Your task to perform on an android device: Add "amazon basics triple a" to the cart on costco Image 0: 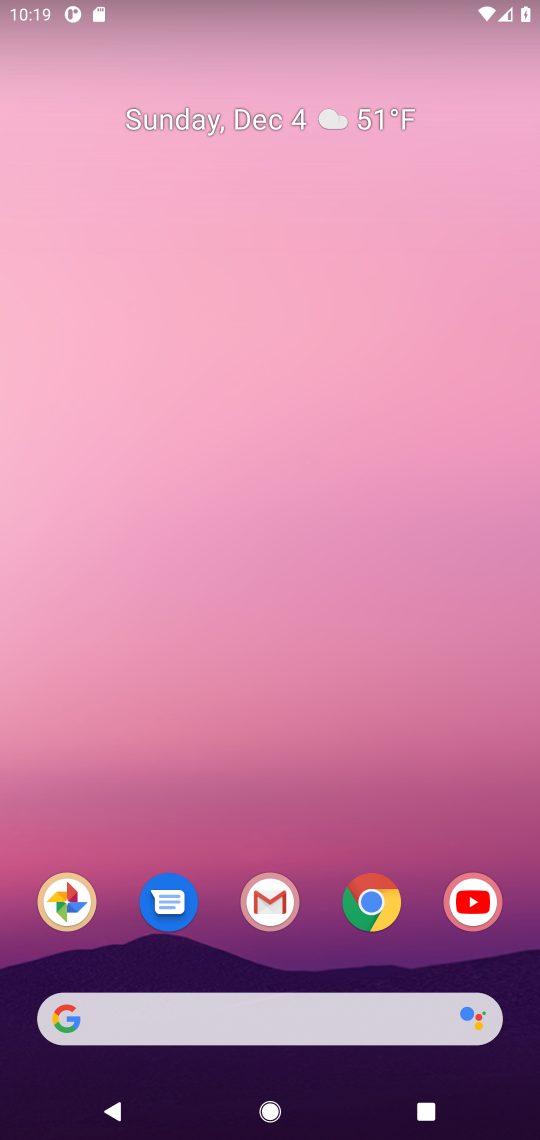
Step 0: click (357, 918)
Your task to perform on an android device: Add "amazon basics triple a" to the cart on costco Image 1: 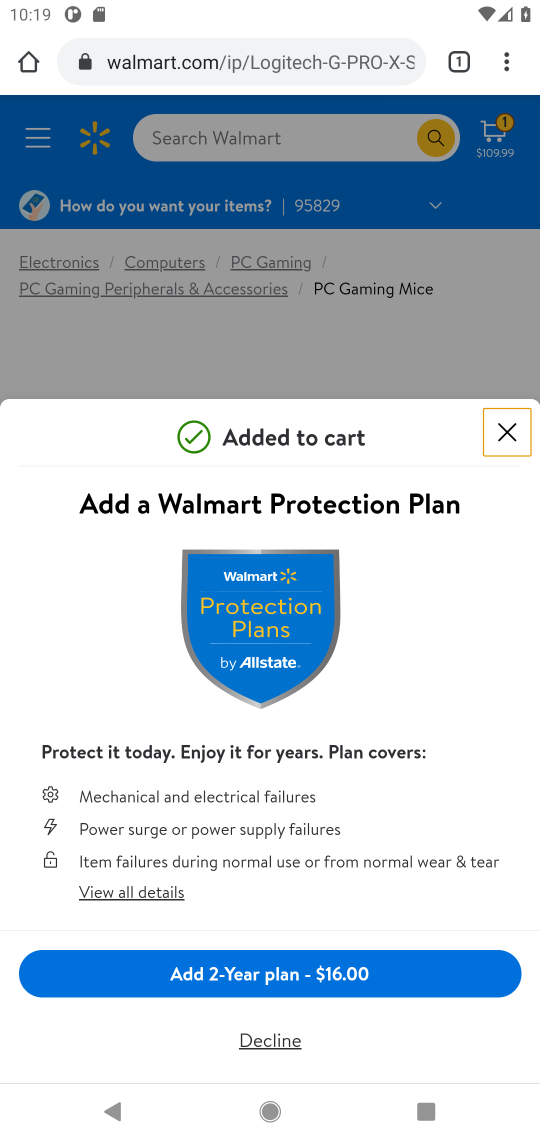
Step 1: click (381, 36)
Your task to perform on an android device: Add "amazon basics triple a" to the cart on costco Image 2: 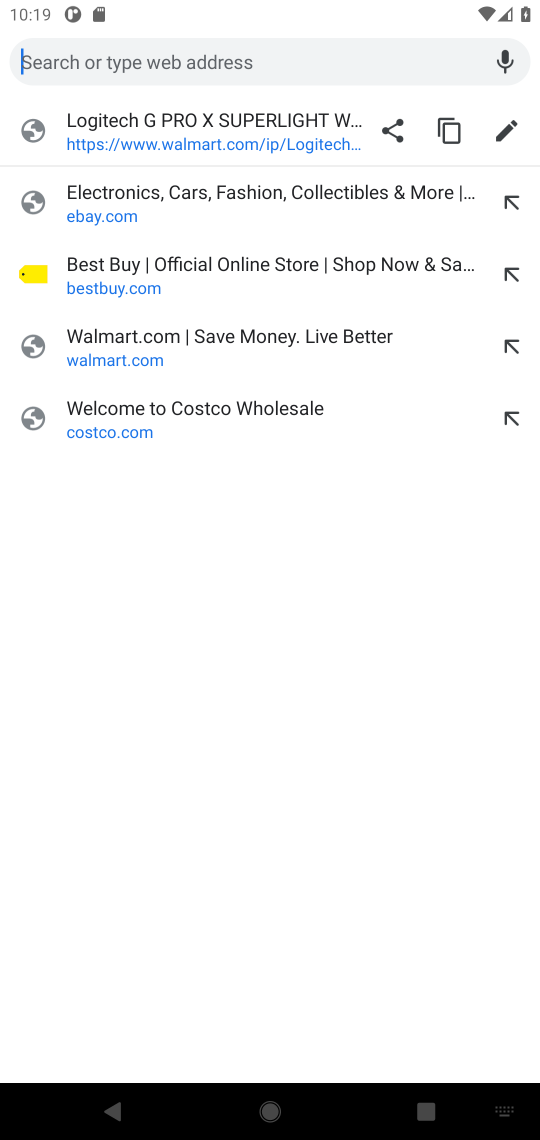
Step 2: click (195, 430)
Your task to perform on an android device: Add "amazon basics triple a" to the cart on costco Image 3: 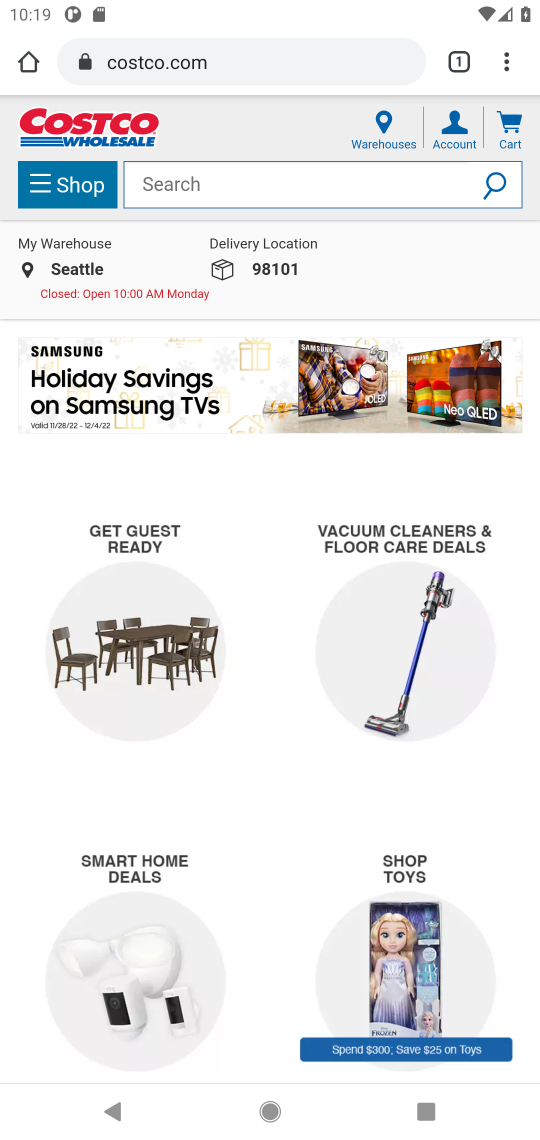
Step 3: click (196, 197)
Your task to perform on an android device: Add "amazon basics triple a" to the cart on costco Image 4: 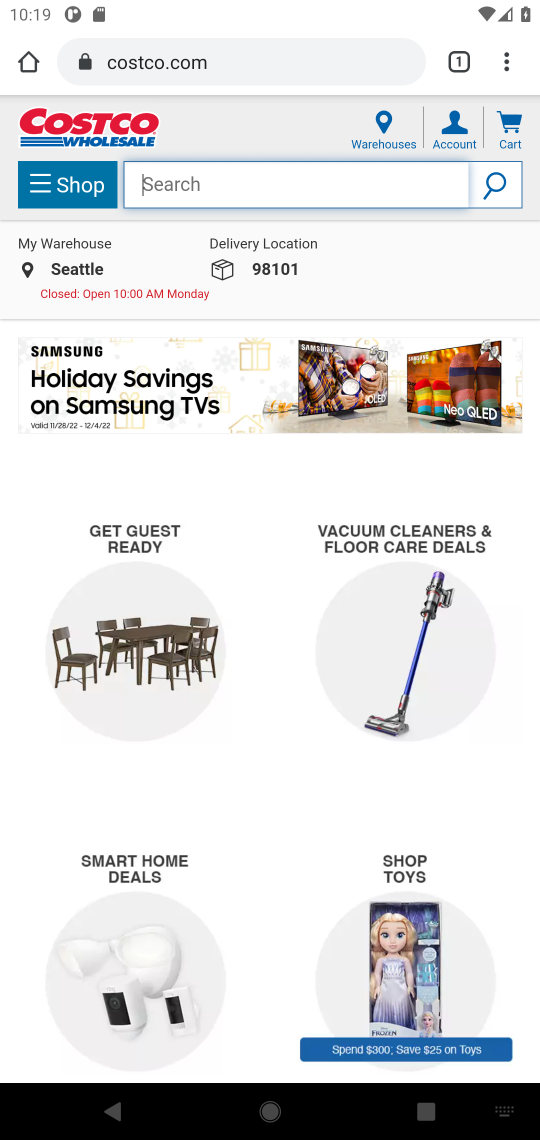
Step 4: type "amazon basics triple a"
Your task to perform on an android device: Add "amazon basics triple a" to the cart on costco Image 5: 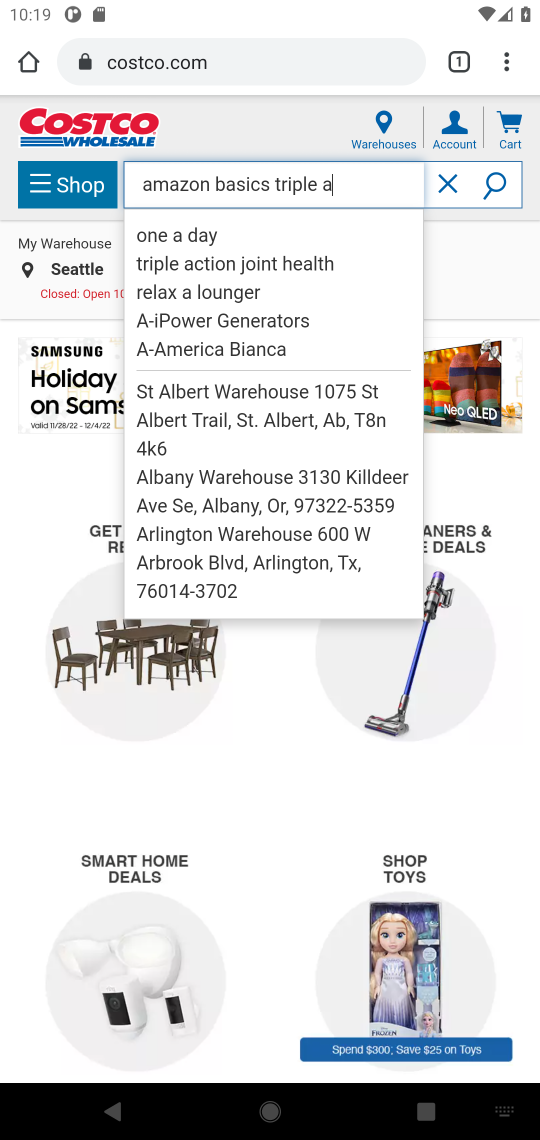
Step 5: click (489, 170)
Your task to perform on an android device: Add "amazon basics triple a" to the cart on costco Image 6: 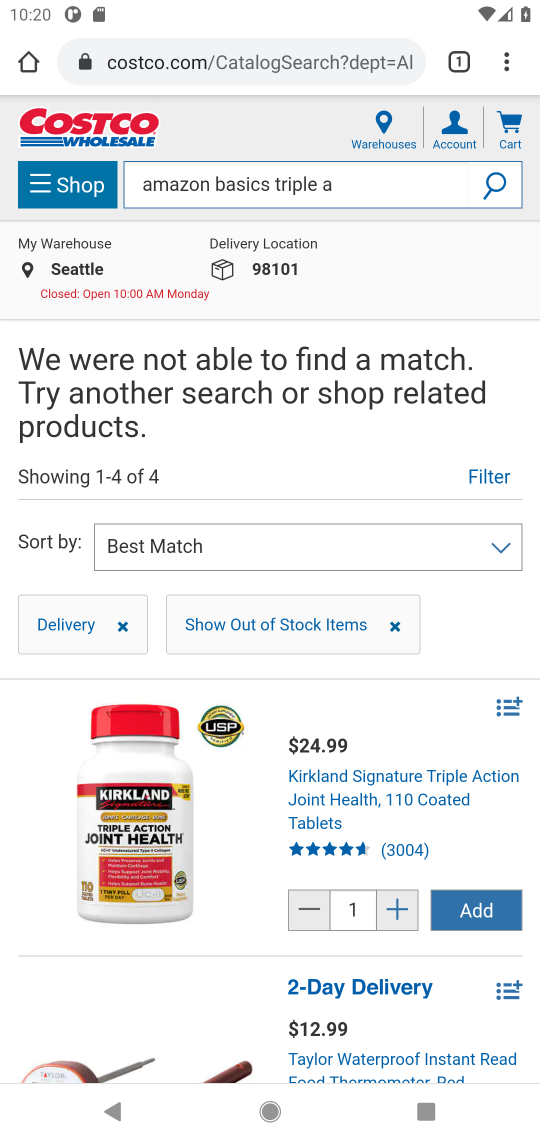
Step 6: task complete